Your task to perform on an android device: turn off sleep mode Image 0: 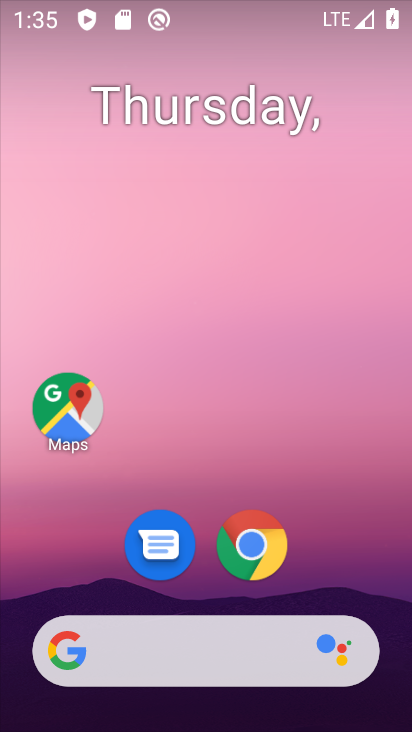
Step 0: drag from (128, 635) to (172, 71)
Your task to perform on an android device: turn off sleep mode Image 1: 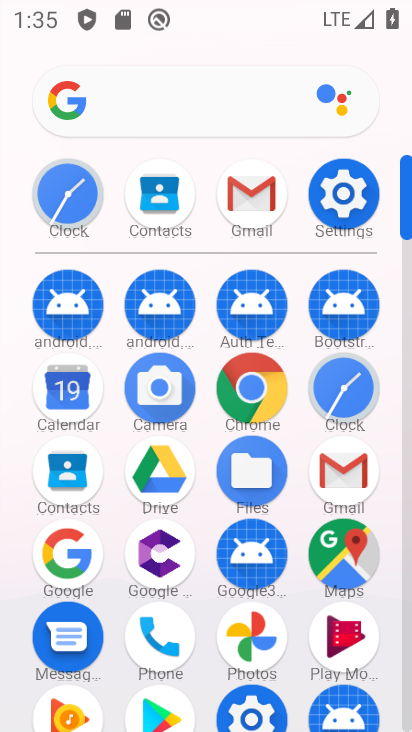
Step 1: click (360, 206)
Your task to perform on an android device: turn off sleep mode Image 2: 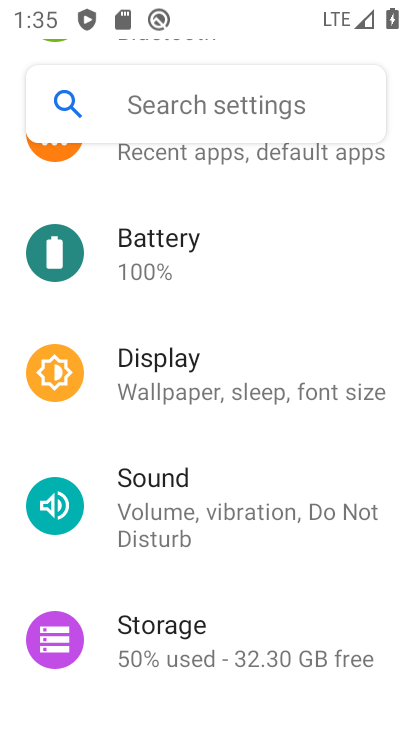
Step 2: click (276, 390)
Your task to perform on an android device: turn off sleep mode Image 3: 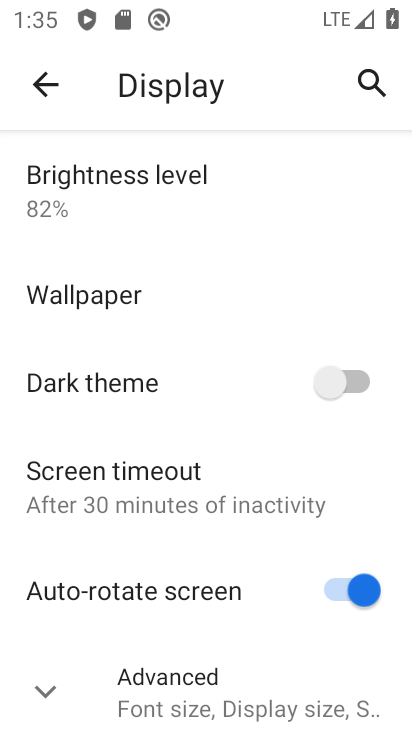
Step 3: task complete